Your task to perform on an android device: Open location settings Image 0: 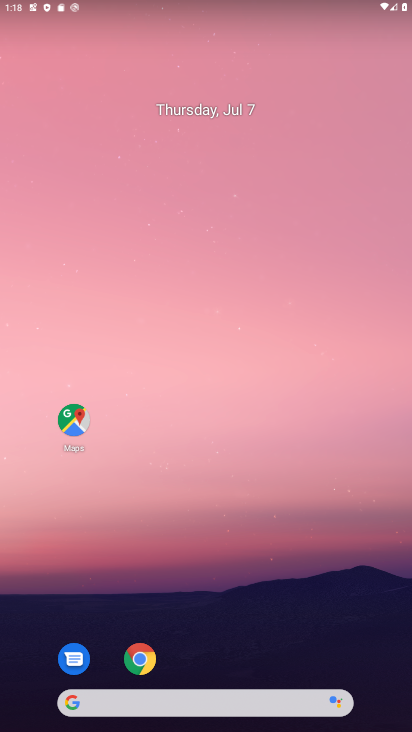
Step 0: drag from (204, 672) to (216, 65)
Your task to perform on an android device: Open location settings Image 1: 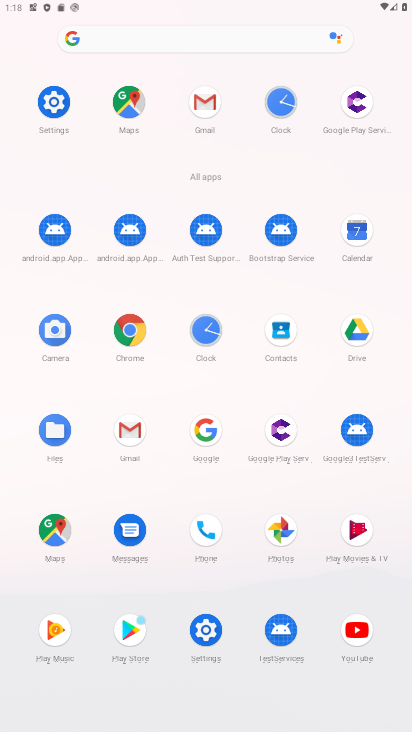
Step 1: click (48, 92)
Your task to perform on an android device: Open location settings Image 2: 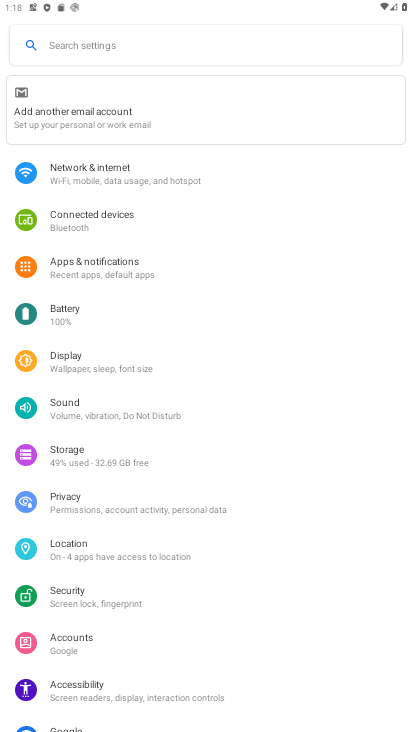
Step 2: click (102, 544)
Your task to perform on an android device: Open location settings Image 3: 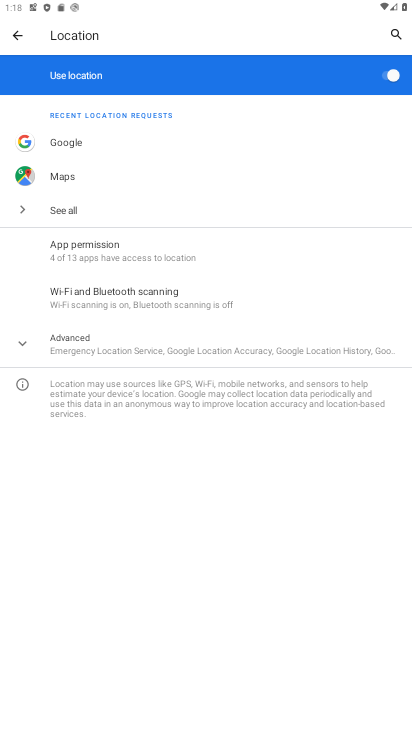
Step 3: click (20, 345)
Your task to perform on an android device: Open location settings Image 4: 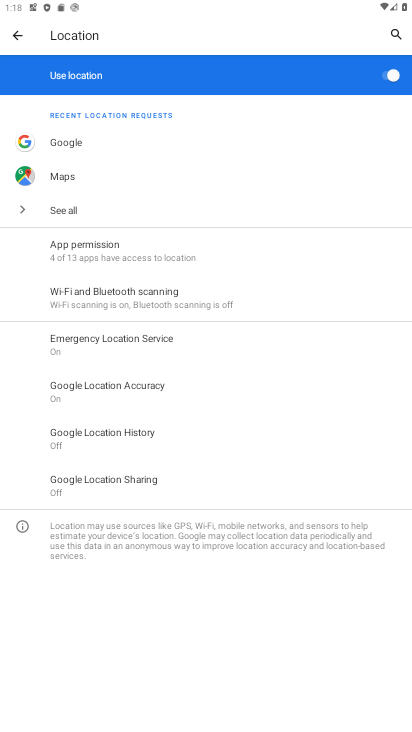
Step 4: task complete